Your task to perform on an android device: turn notification dots off Image 0: 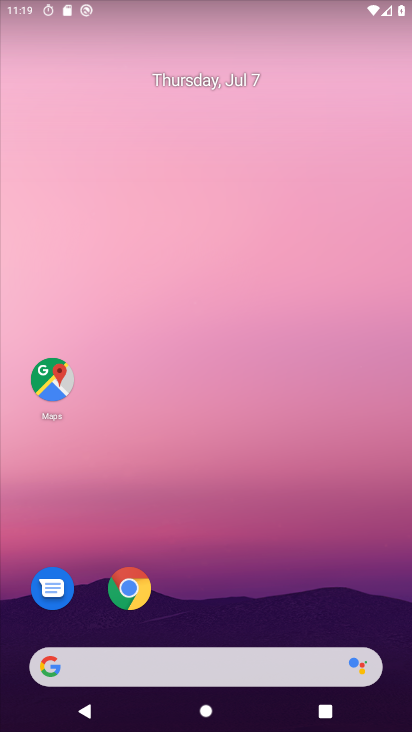
Step 0: drag from (207, 660) to (387, 106)
Your task to perform on an android device: turn notification dots off Image 1: 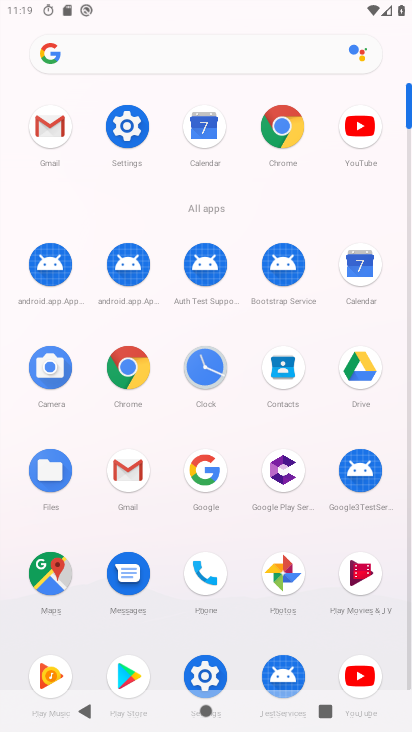
Step 1: click (123, 119)
Your task to perform on an android device: turn notification dots off Image 2: 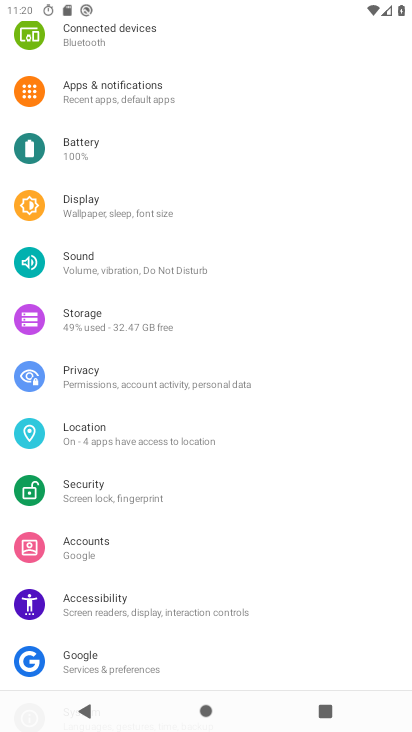
Step 2: click (140, 83)
Your task to perform on an android device: turn notification dots off Image 3: 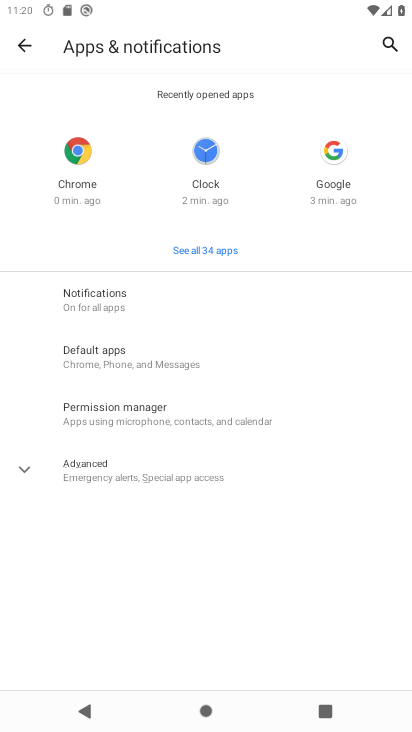
Step 3: click (112, 292)
Your task to perform on an android device: turn notification dots off Image 4: 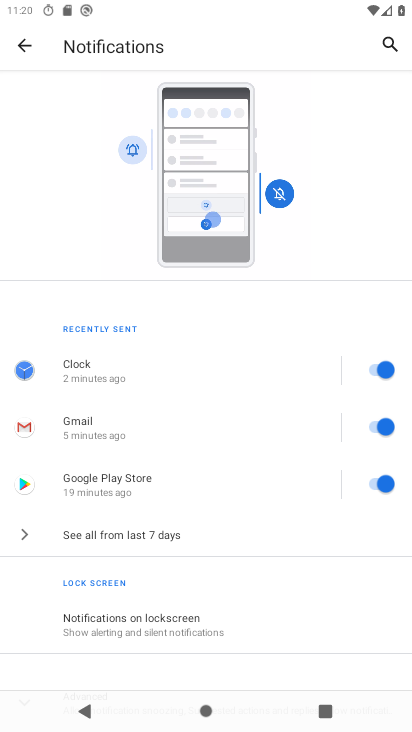
Step 4: drag from (234, 600) to (411, 138)
Your task to perform on an android device: turn notification dots off Image 5: 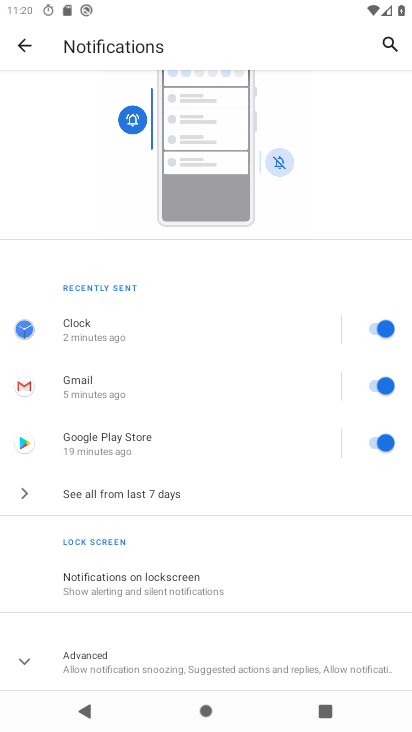
Step 5: click (137, 655)
Your task to perform on an android device: turn notification dots off Image 6: 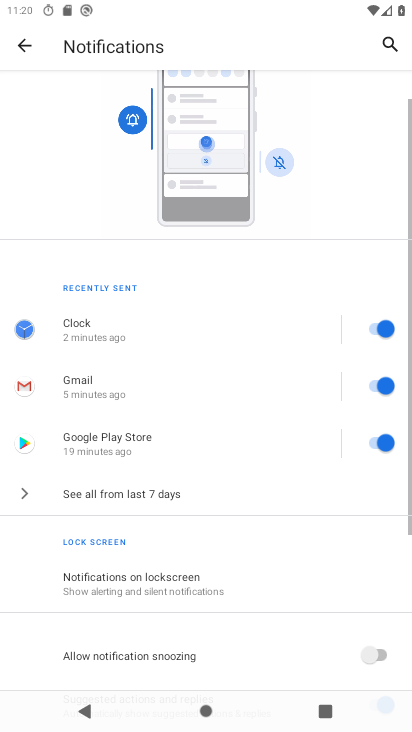
Step 6: task complete